Your task to perform on an android device: Open battery settings Image 0: 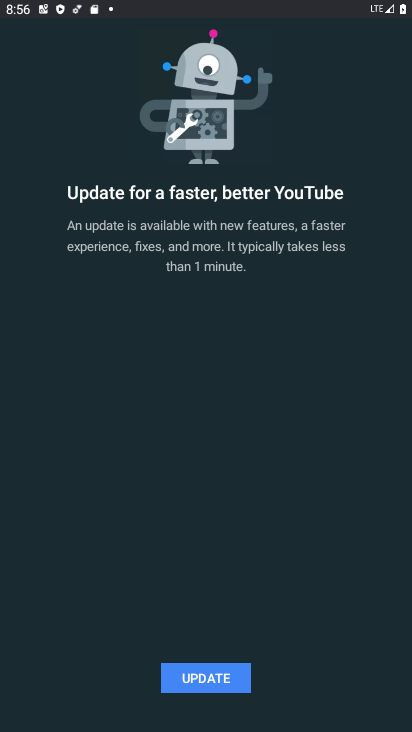
Step 0: press home button
Your task to perform on an android device: Open battery settings Image 1: 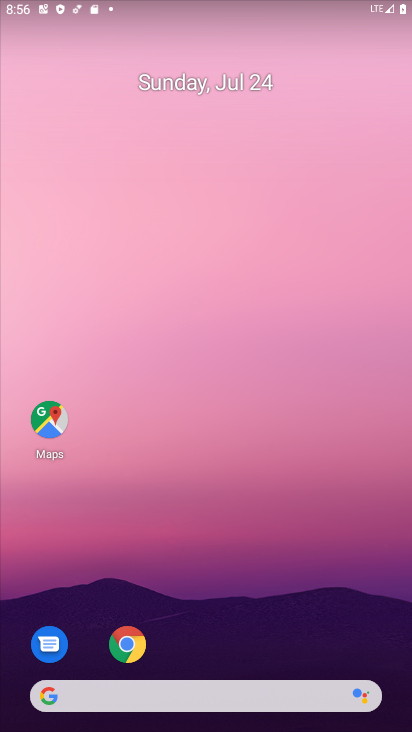
Step 1: drag from (62, 505) to (327, 58)
Your task to perform on an android device: Open battery settings Image 2: 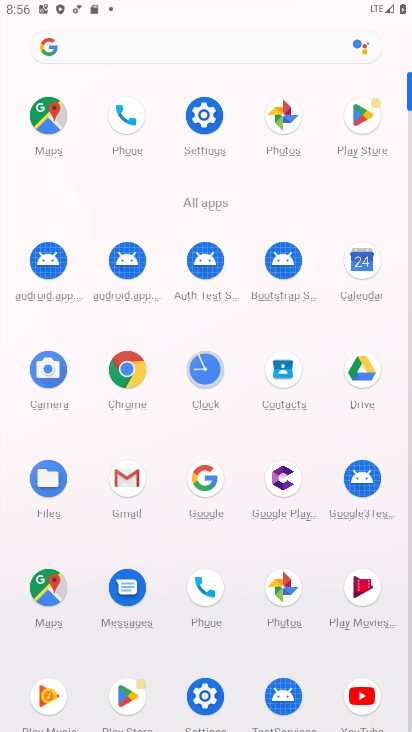
Step 2: click (200, 111)
Your task to perform on an android device: Open battery settings Image 3: 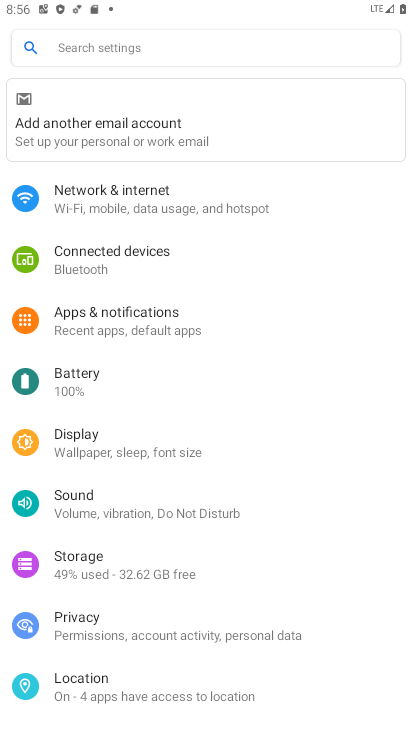
Step 3: click (50, 379)
Your task to perform on an android device: Open battery settings Image 4: 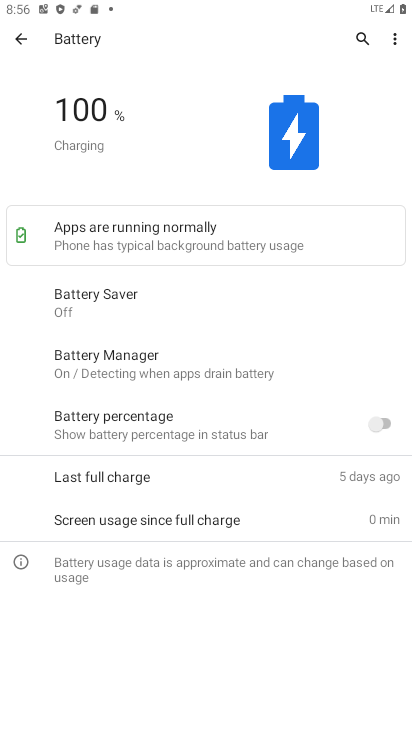
Step 4: task complete